Your task to perform on an android device: see creations saved in the google photos Image 0: 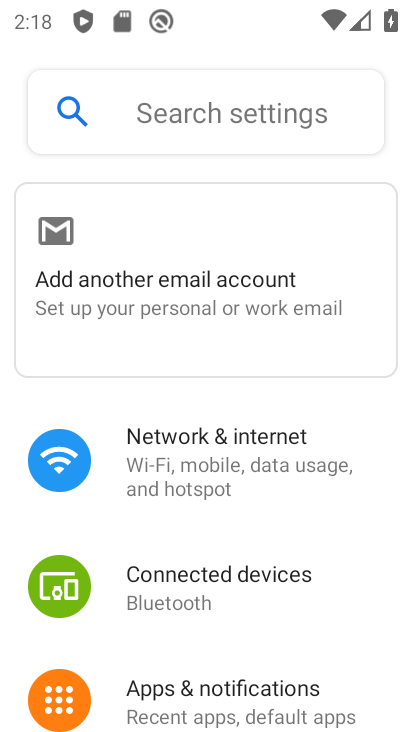
Step 0: press home button
Your task to perform on an android device: see creations saved in the google photos Image 1: 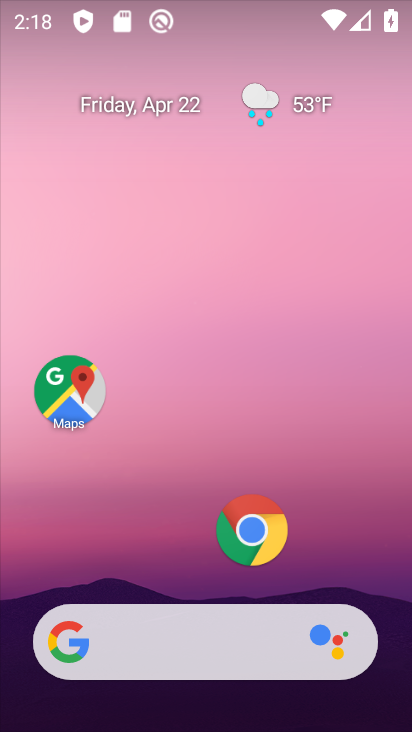
Step 1: drag from (188, 620) to (163, 204)
Your task to perform on an android device: see creations saved in the google photos Image 2: 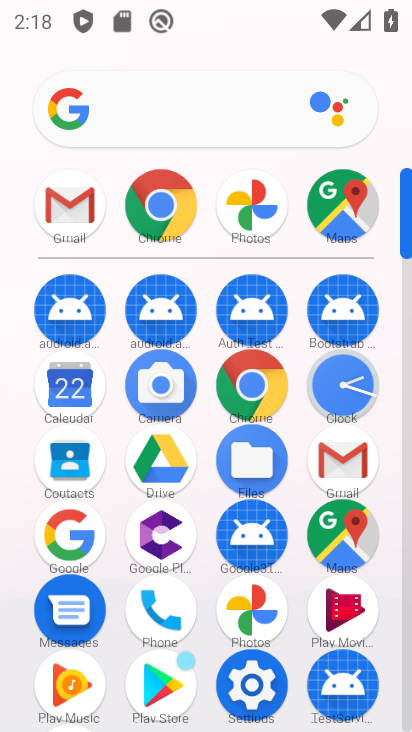
Step 2: click (235, 601)
Your task to perform on an android device: see creations saved in the google photos Image 3: 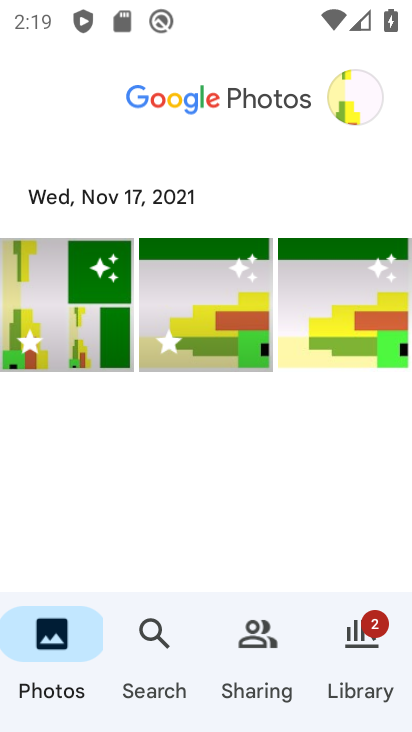
Step 3: click (159, 638)
Your task to perform on an android device: see creations saved in the google photos Image 4: 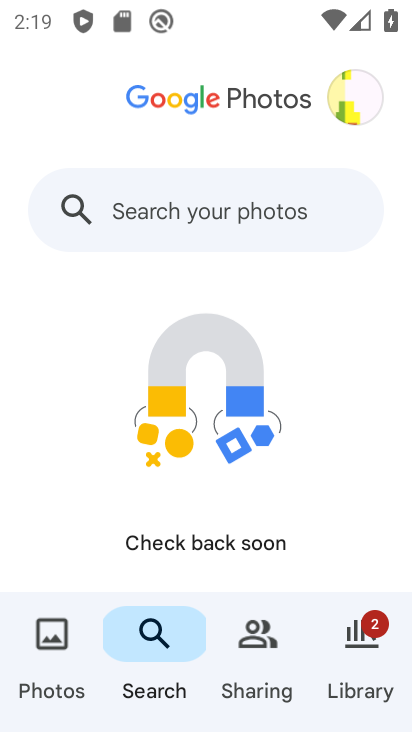
Step 4: click (242, 643)
Your task to perform on an android device: see creations saved in the google photos Image 5: 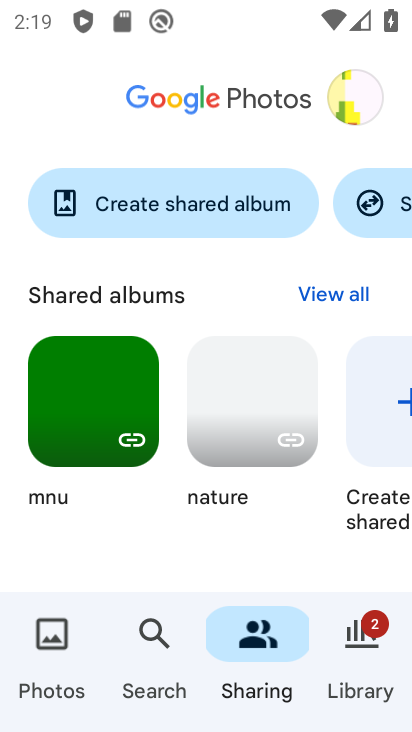
Step 5: task complete